Your task to perform on an android device: create a new album in the google photos Image 0: 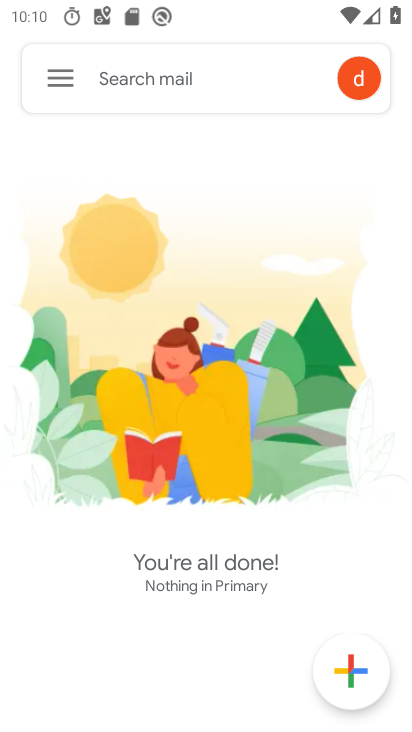
Step 0: press home button
Your task to perform on an android device: create a new album in the google photos Image 1: 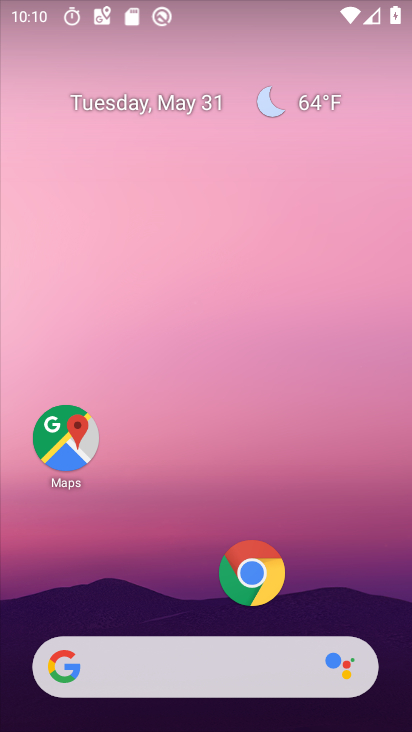
Step 1: drag from (172, 576) to (191, 19)
Your task to perform on an android device: create a new album in the google photos Image 2: 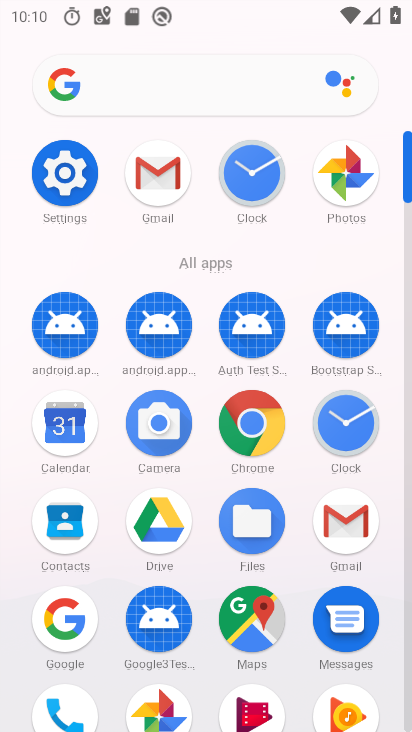
Step 2: click (333, 187)
Your task to perform on an android device: create a new album in the google photos Image 3: 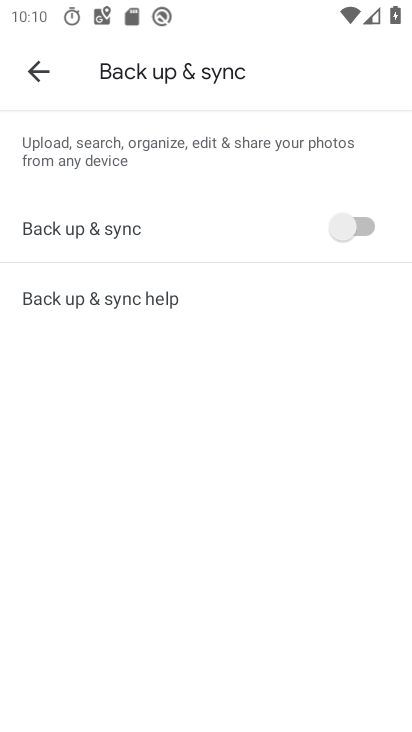
Step 3: press home button
Your task to perform on an android device: create a new album in the google photos Image 4: 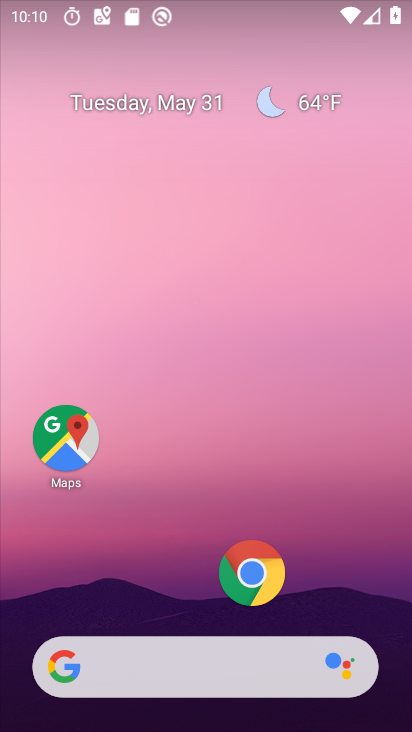
Step 4: drag from (174, 497) to (188, 128)
Your task to perform on an android device: create a new album in the google photos Image 5: 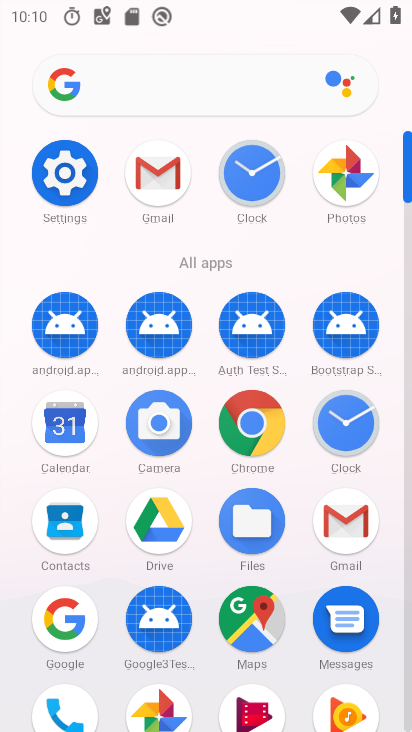
Step 5: click (366, 160)
Your task to perform on an android device: create a new album in the google photos Image 6: 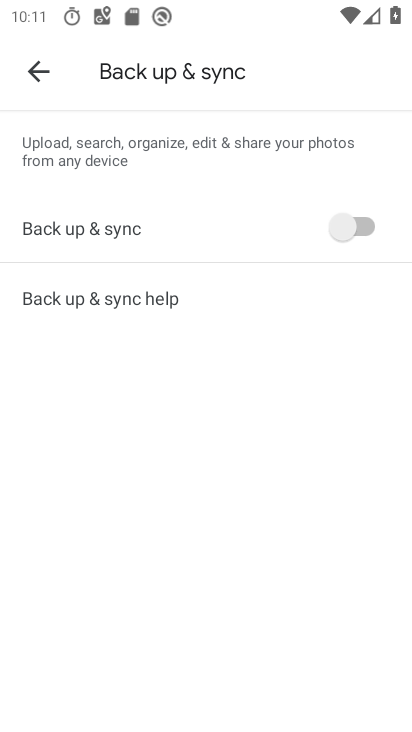
Step 6: click (12, 61)
Your task to perform on an android device: create a new album in the google photos Image 7: 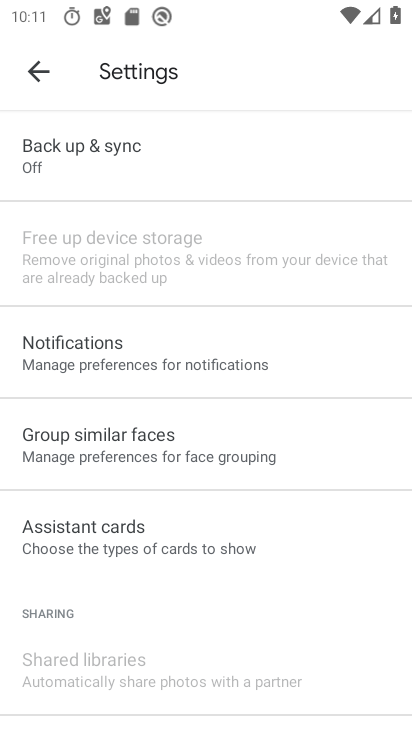
Step 7: click (41, 65)
Your task to perform on an android device: create a new album in the google photos Image 8: 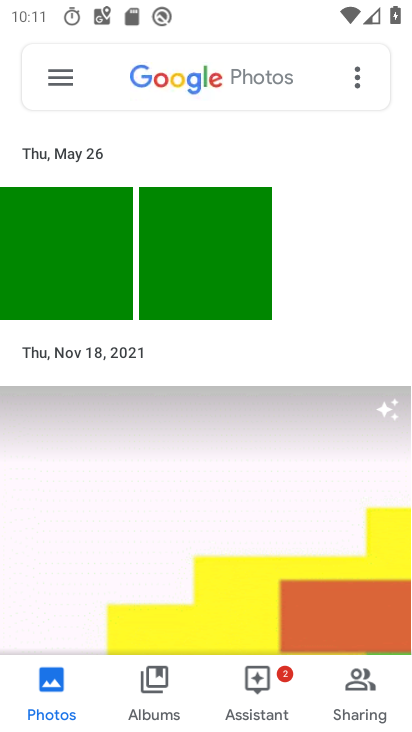
Step 8: click (115, 153)
Your task to perform on an android device: create a new album in the google photos Image 9: 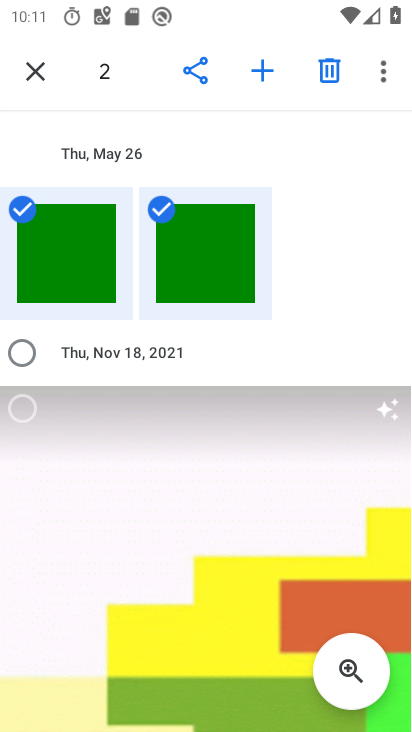
Step 9: click (264, 76)
Your task to perform on an android device: create a new album in the google photos Image 10: 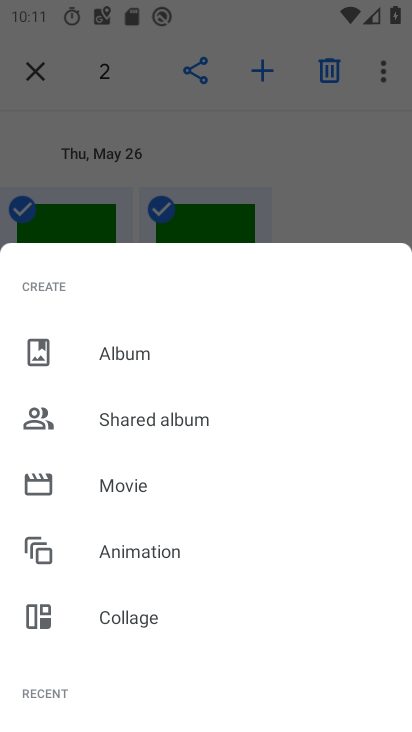
Step 10: click (107, 350)
Your task to perform on an android device: create a new album in the google photos Image 11: 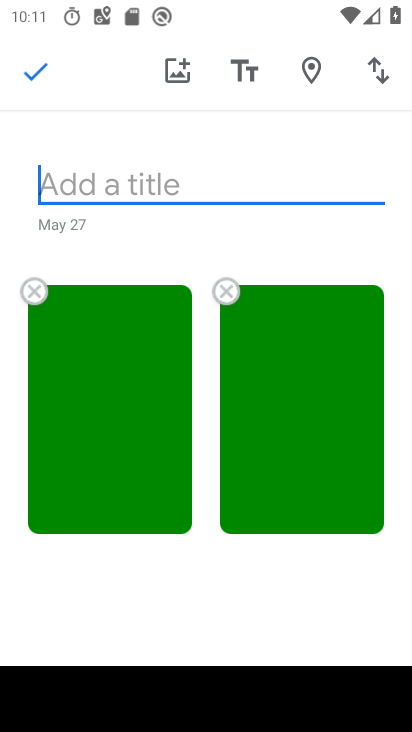
Step 11: type "kk"
Your task to perform on an android device: create a new album in the google photos Image 12: 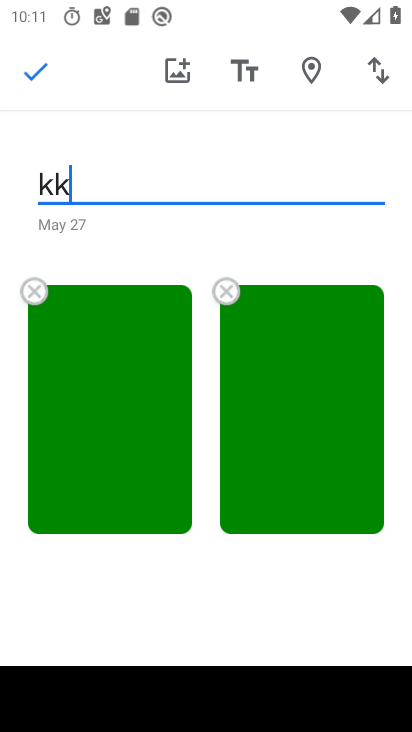
Step 12: click (46, 79)
Your task to perform on an android device: create a new album in the google photos Image 13: 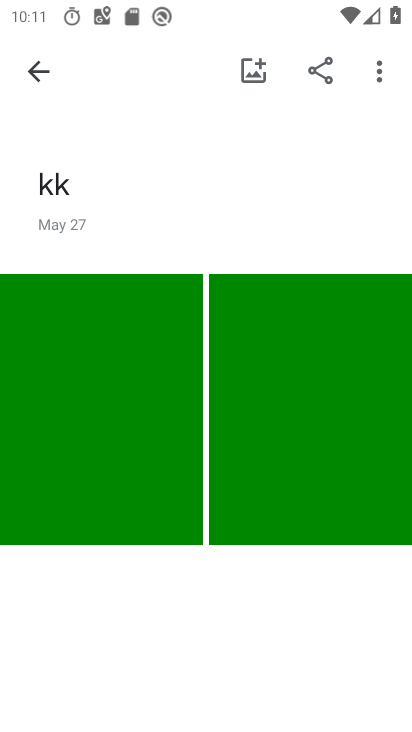
Step 13: click (39, 71)
Your task to perform on an android device: create a new album in the google photos Image 14: 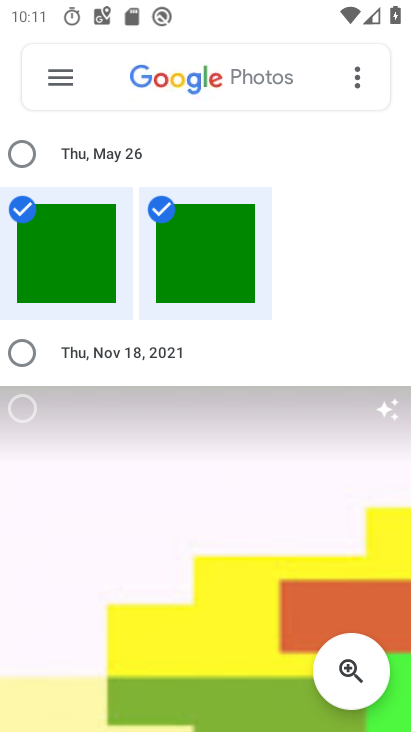
Step 14: task complete